Your task to perform on an android device: open device folders in google photos Image 0: 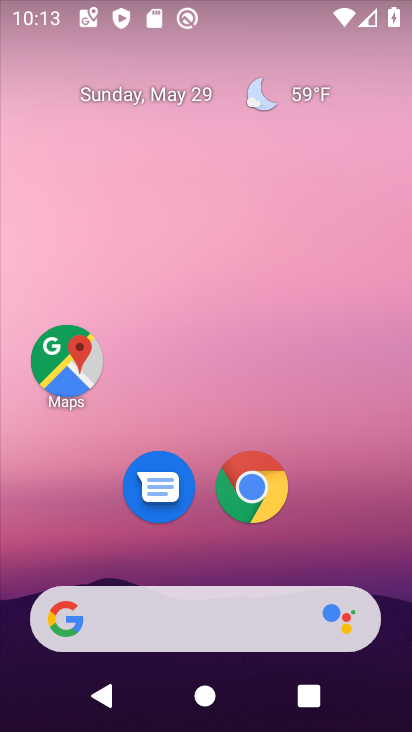
Step 0: drag from (394, 715) to (345, 136)
Your task to perform on an android device: open device folders in google photos Image 1: 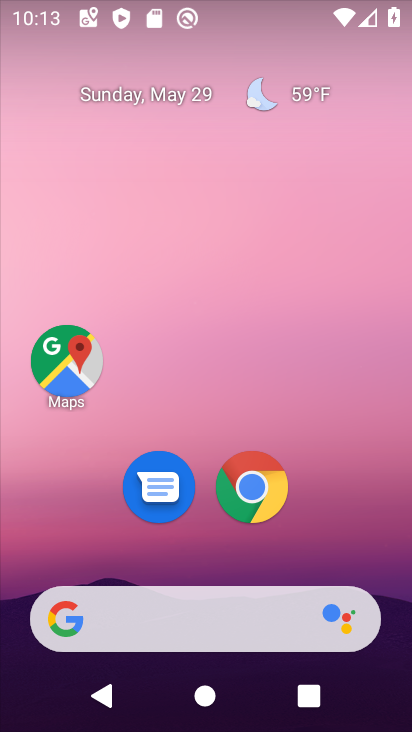
Step 1: drag from (400, 709) to (355, 96)
Your task to perform on an android device: open device folders in google photos Image 2: 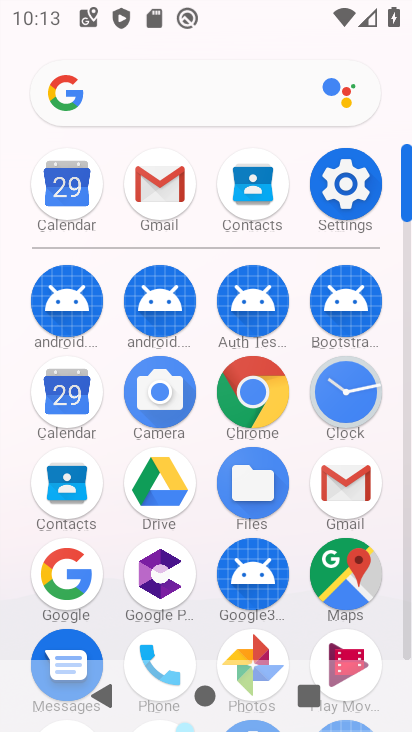
Step 2: click (253, 638)
Your task to perform on an android device: open device folders in google photos Image 3: 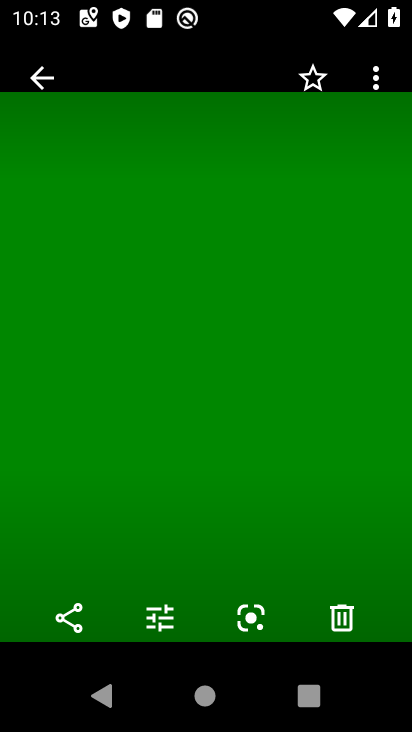
Step 3: click (41, 75)
Your task to perform on an android device: open device folders in google photos Image 4: 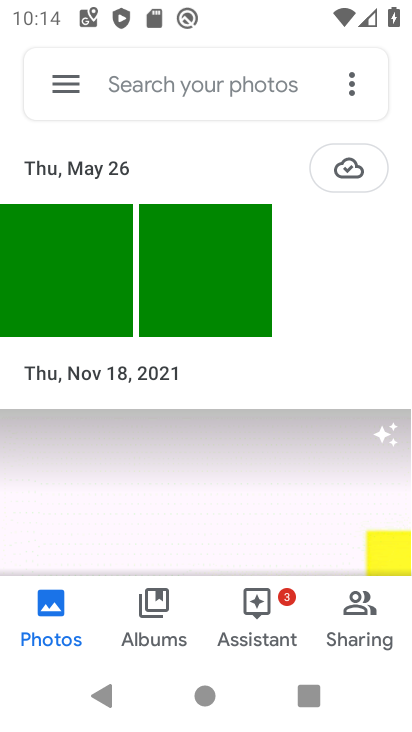
Step 4: click (62, 77)
Your task to perform on an android device: open device folders in google photos Image 5: 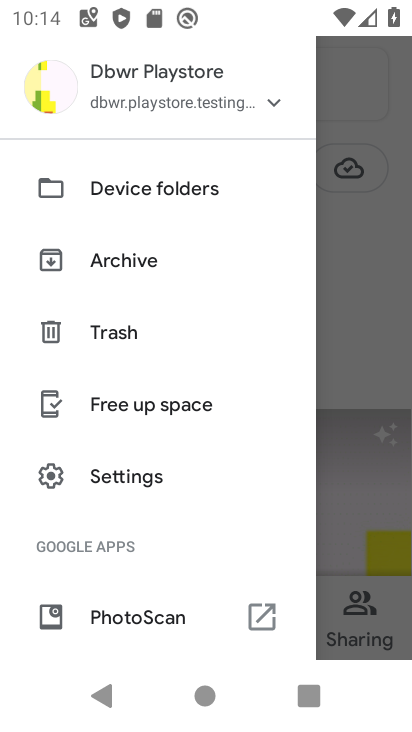
Step 5: click (104, 183)
Your task to perform on an android device: open device folders in google photos Image 6: 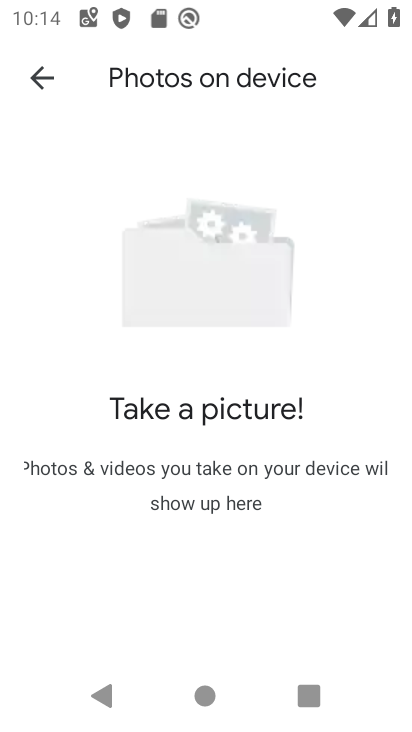
Step 6: task complete